Your task to perform on an android device: Go to calendar. Show me events next week Image 0: 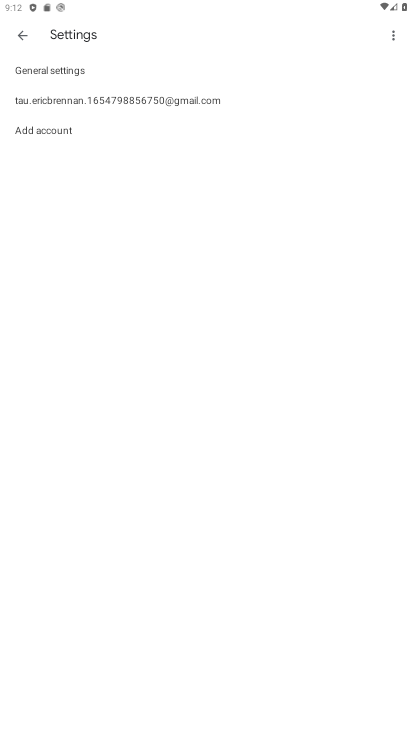
Step 0: press home button
Your task to perform on an android device: Go to calendar. Show me events next week Image 1: 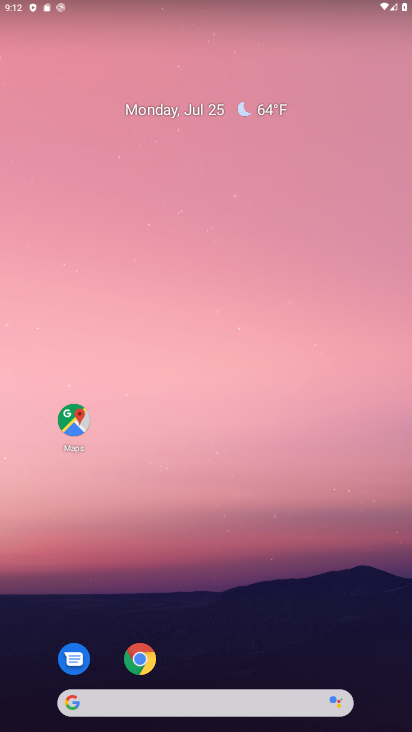
Step 1: drag from (348, 622) to (394, 113)
Your task to perform on an android device: Go to calendar. Show me events next week Image 2: 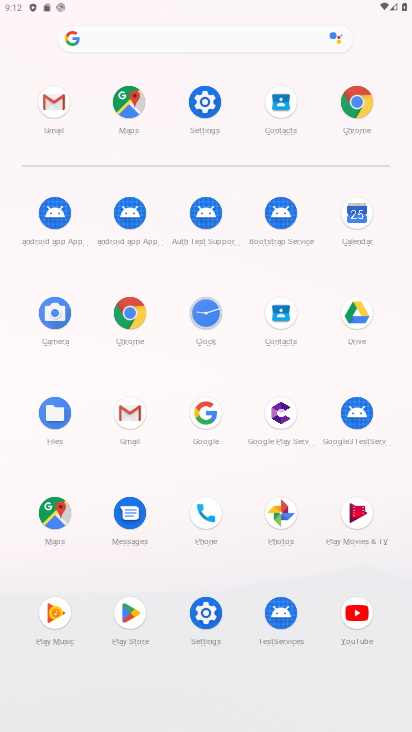
Step 2: click (359, 221)
Your task to perform on an android device: Go to calendar. Show me events next week Image 3: 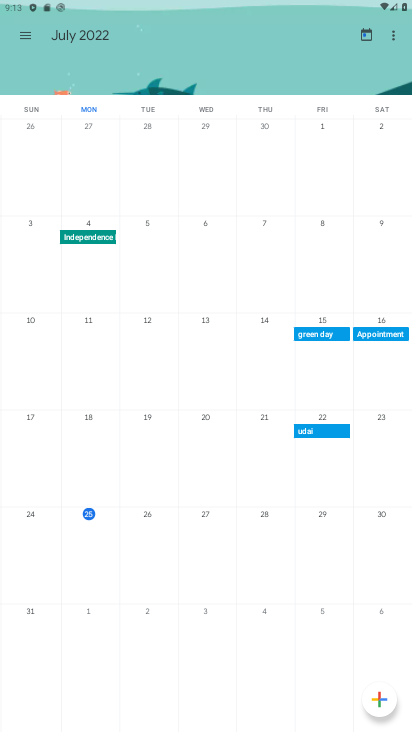
Step 3: click (23, 32)
Your task to perform on an android device: Go to calendar. Show me events next week Image 4: 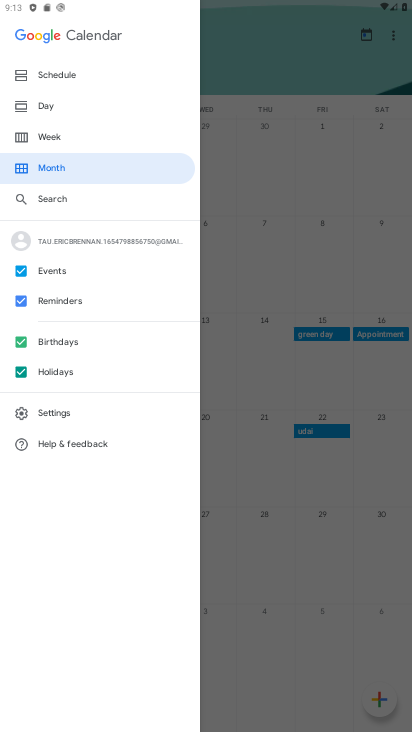
Step 4: click (76, 79)
Your task to perform on an android device: Go to calendar. Show me events next week Image 5: 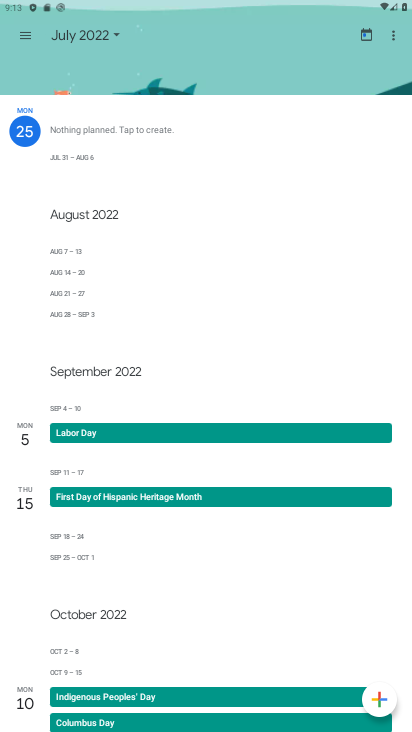
Step 5: click (282, 430)
Your task to perform on an android device: Go to calendar. Show me events next week Image 6: 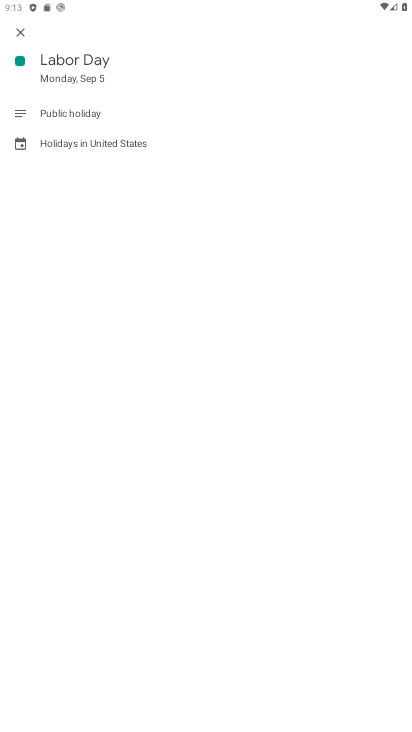
Step 6: task complete